Your task to perform on an android device: Open calendar and show me the first week of next month Image 0: 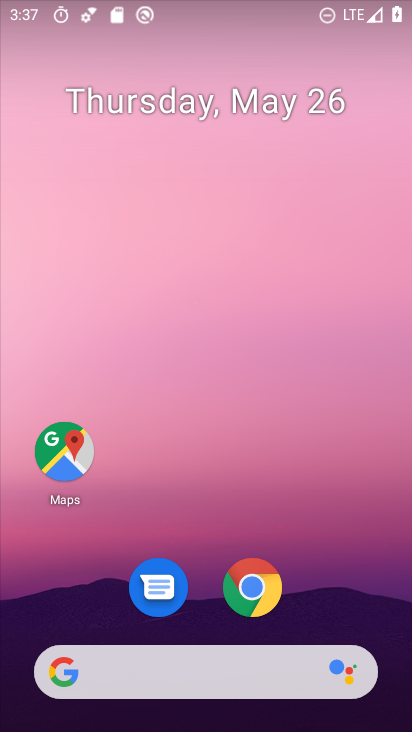
Step 0: drag from (344, 579) to (268, 180)
Your task to perform on an android device: Open calendar and show me the first week of next month Image 1: 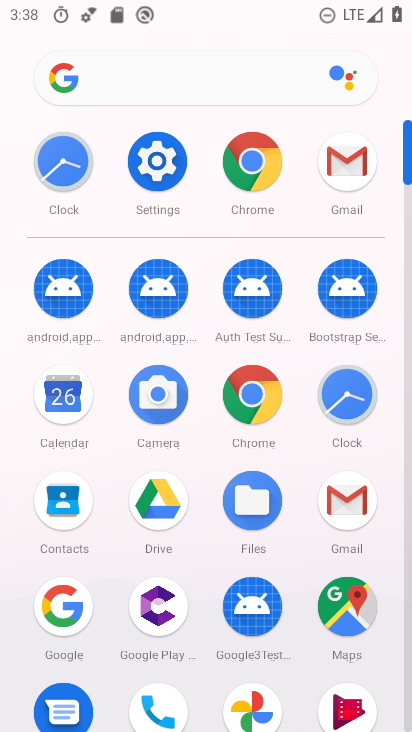
Step 1: click (62, 404)
Your task to perform on an android device: Open calendar and show me the first week of next month Image 2: 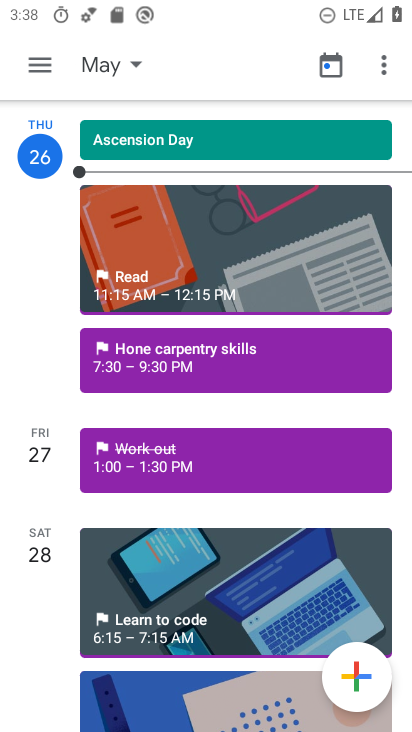
Step 2: click (91, 70)
Your task to perform on an android device: Open calendar and show me the first week of next month Image 3: 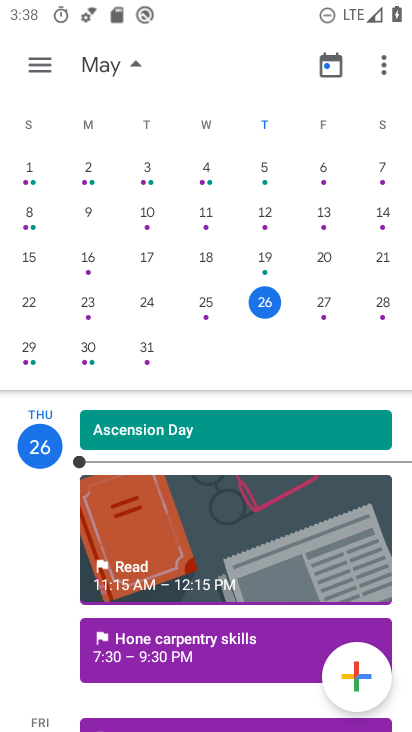
Step 3: drag from (370, 241) to (55, 219)
Your task to perform on an android device: Open calendar and show me the first week of next month Image 4: 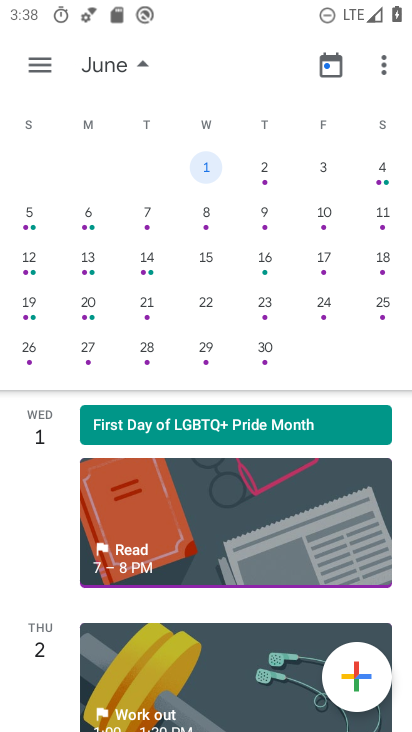
Step 4: click (31, 214)
Your task to perform on an android device: Open calendar and show me the first week of next month Image 5: 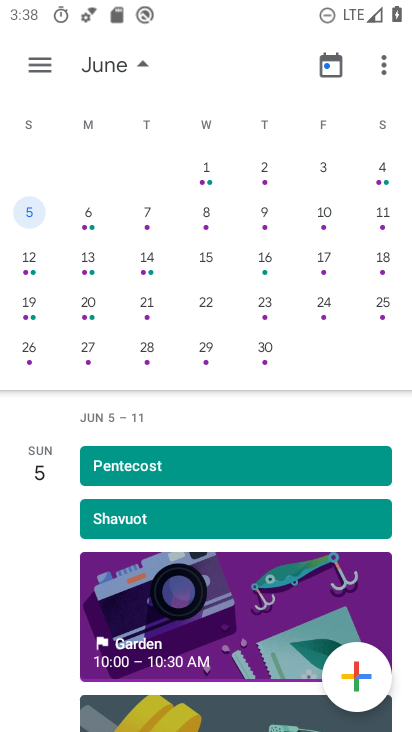
Step 5: click (47, 68)
Your task to perform on an android device: Open calendar and show me the first week of next month Image 6: 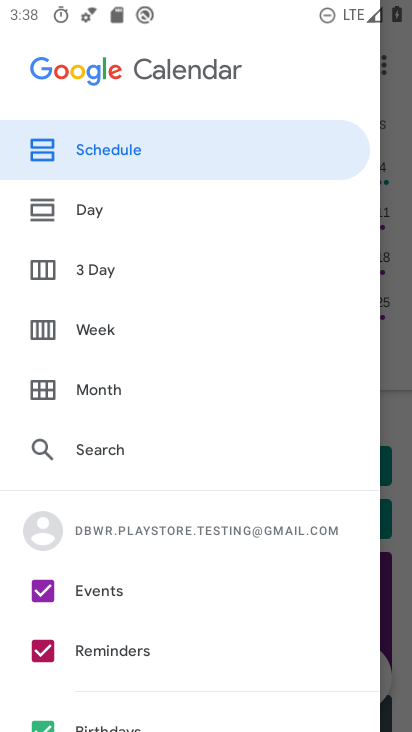
Step 6: click (89, 322)
Your task to perform on an android device: Open calendar and show me the first week of next month Image 7: 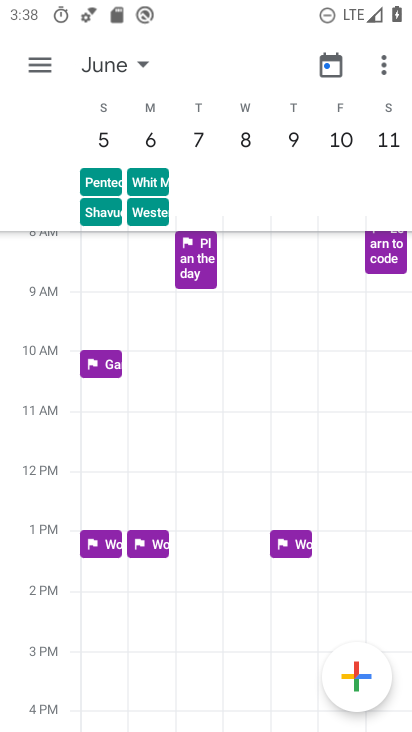
Step 7: task complete